Your task to perform on an android device: turn off sleep mode Image 0: 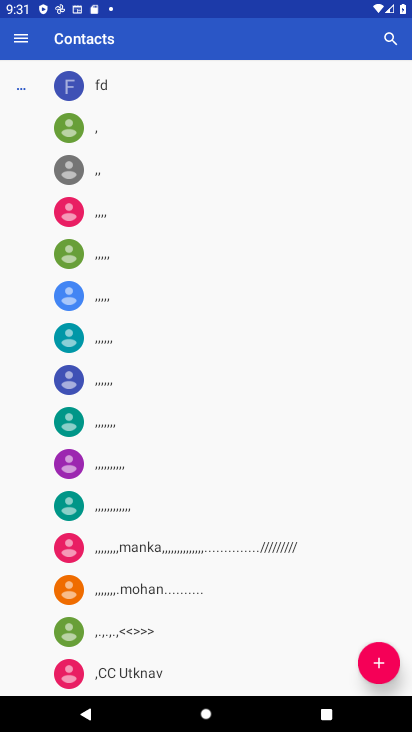
Step 0: press home button
Your task to perform on an android device: turn off sleep mode Image 1: 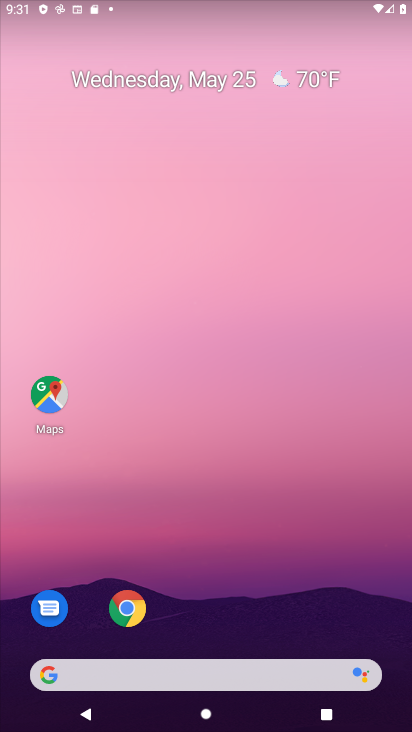
Step 1: drag from (260, 566) to (254, 59)
Your task to perform on an android device: turn off sleep mode Image 2: 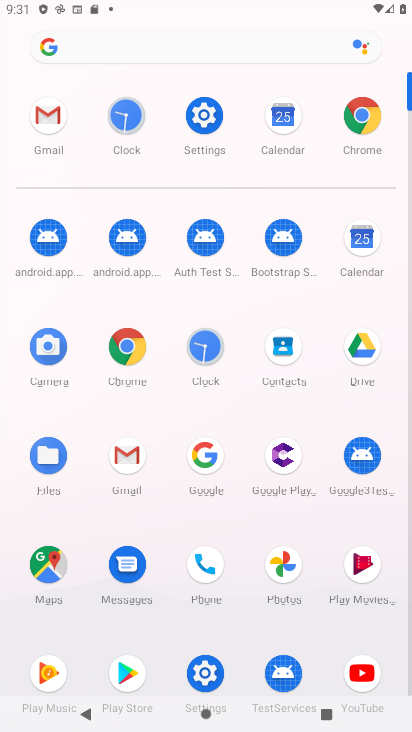
Step 2: click (208, 117)
Your task to perform on an android device: turn off sleep mode Image 3: 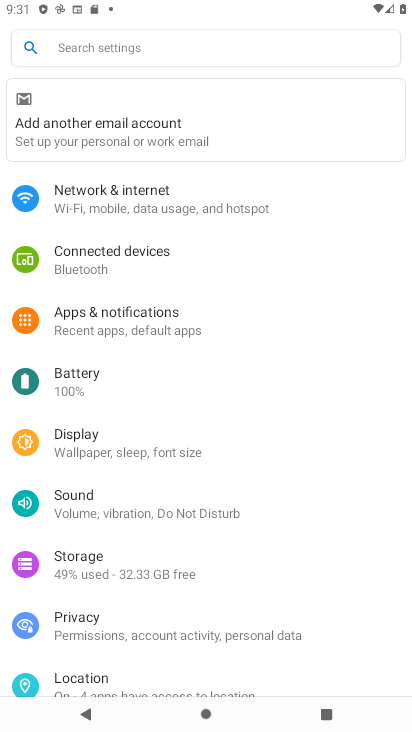
Step 3: click (172, 449)
Your task to perform on an android device: turn off sleep mode Image 4: 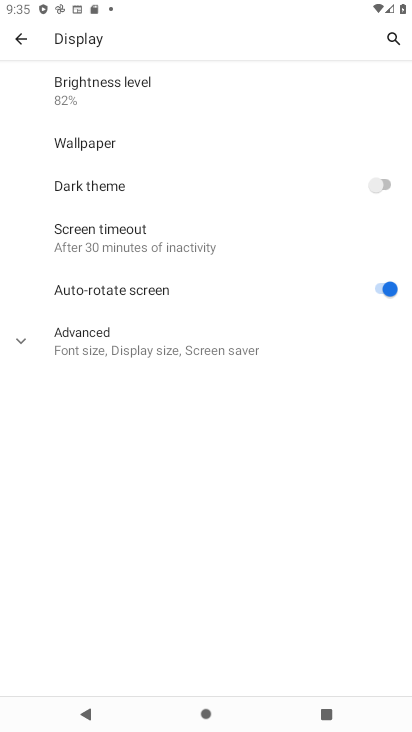
Step 4: task complete